Your task to perform on an android device: open app "Google Find My Device" Image 0: 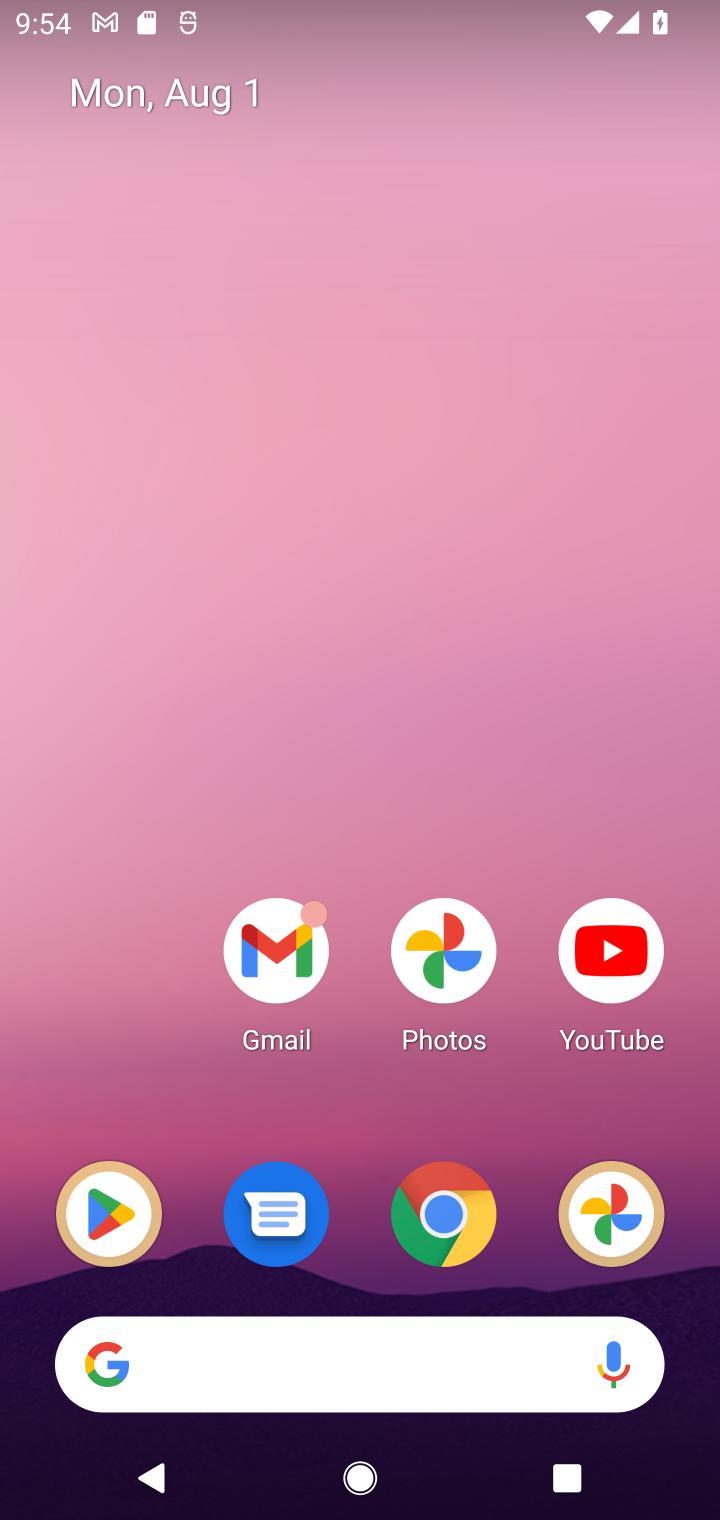
Step 0: press home button
Your task to perform on an android device: open app "Google Find My Device" Image 1: 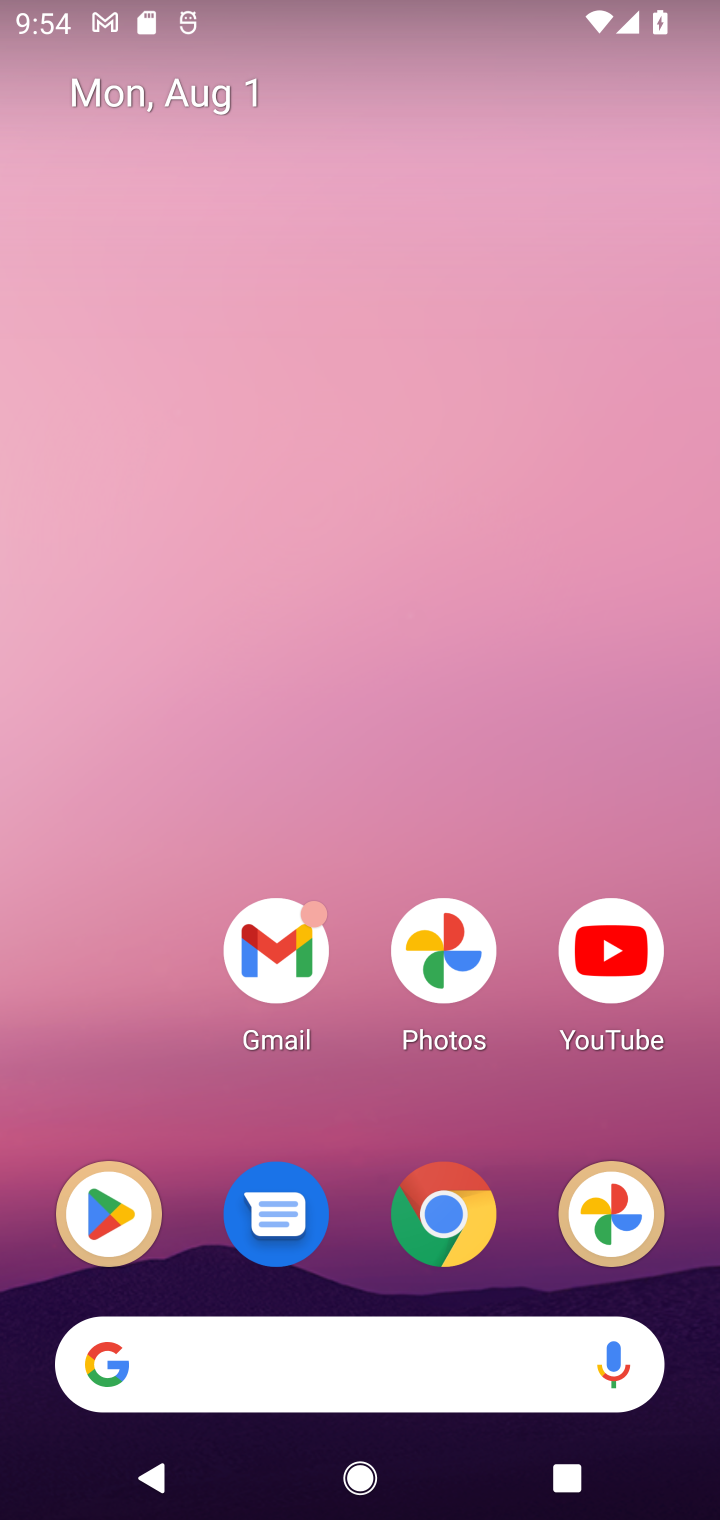
Step 1: click (111, 1224)
Your task to perform on an android device: open app "Google Find My Device" Image 2: 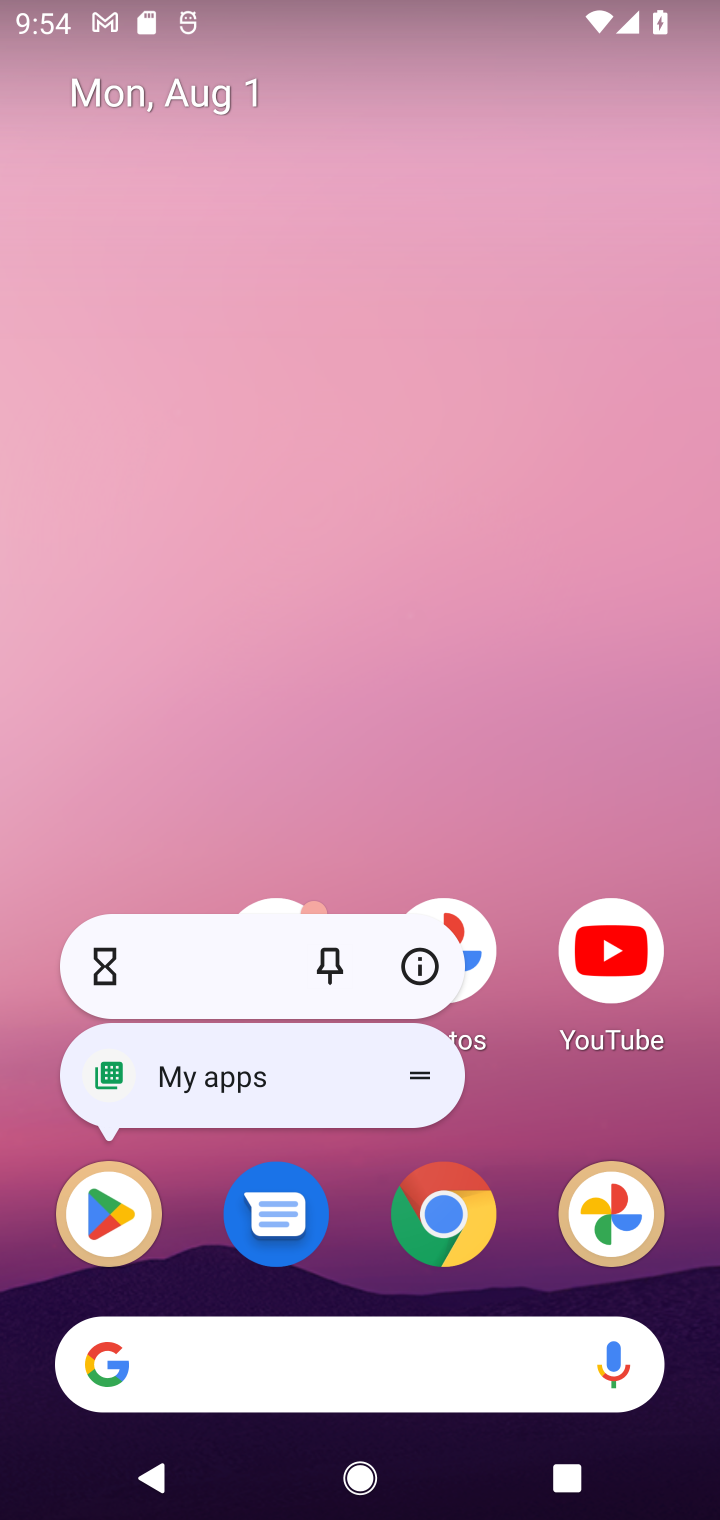
Step 2: click (111, 1224)
Your task to perform on an android device: open app "Google Find My Device" Image 3: 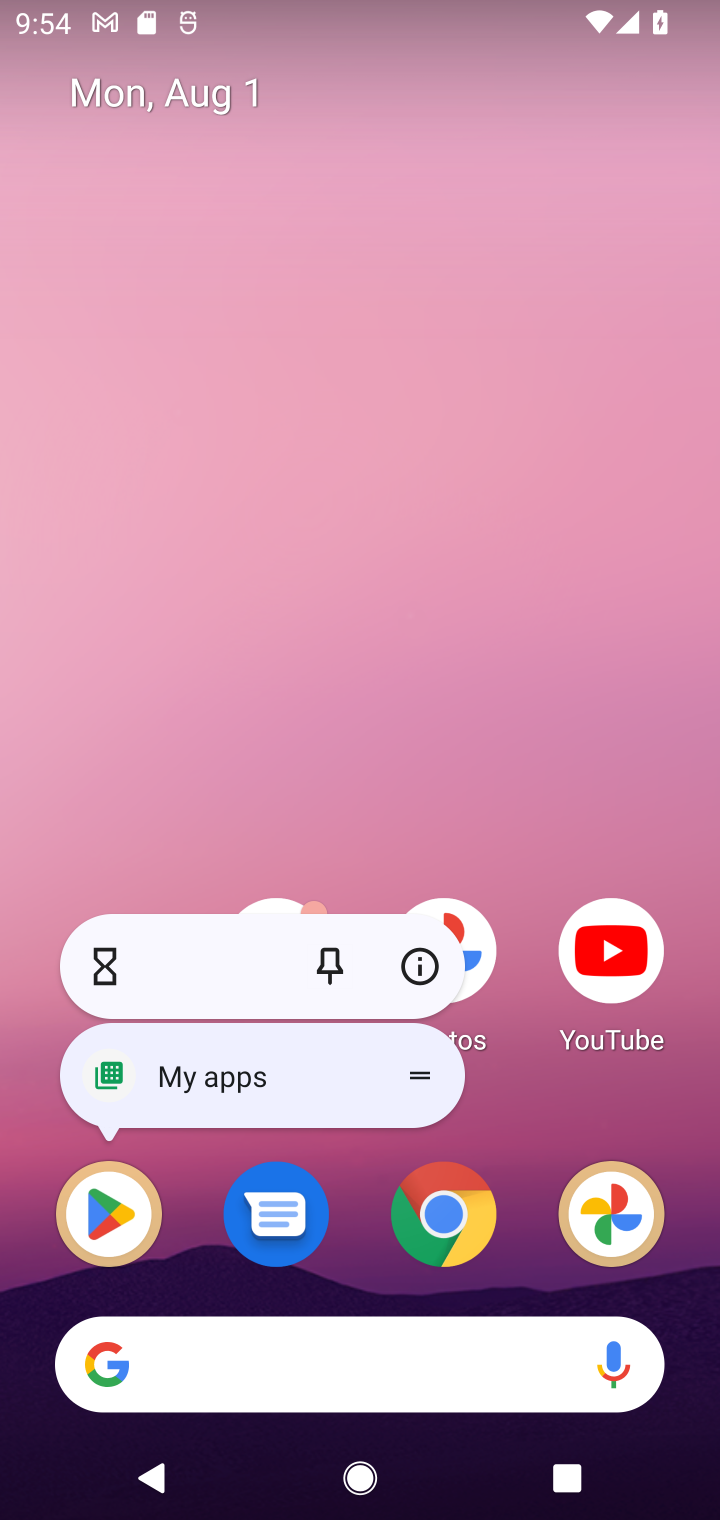
Step 3: click (111, 1222)
Your task to perform on an android device: open app "Google Find My Device" Image 4: 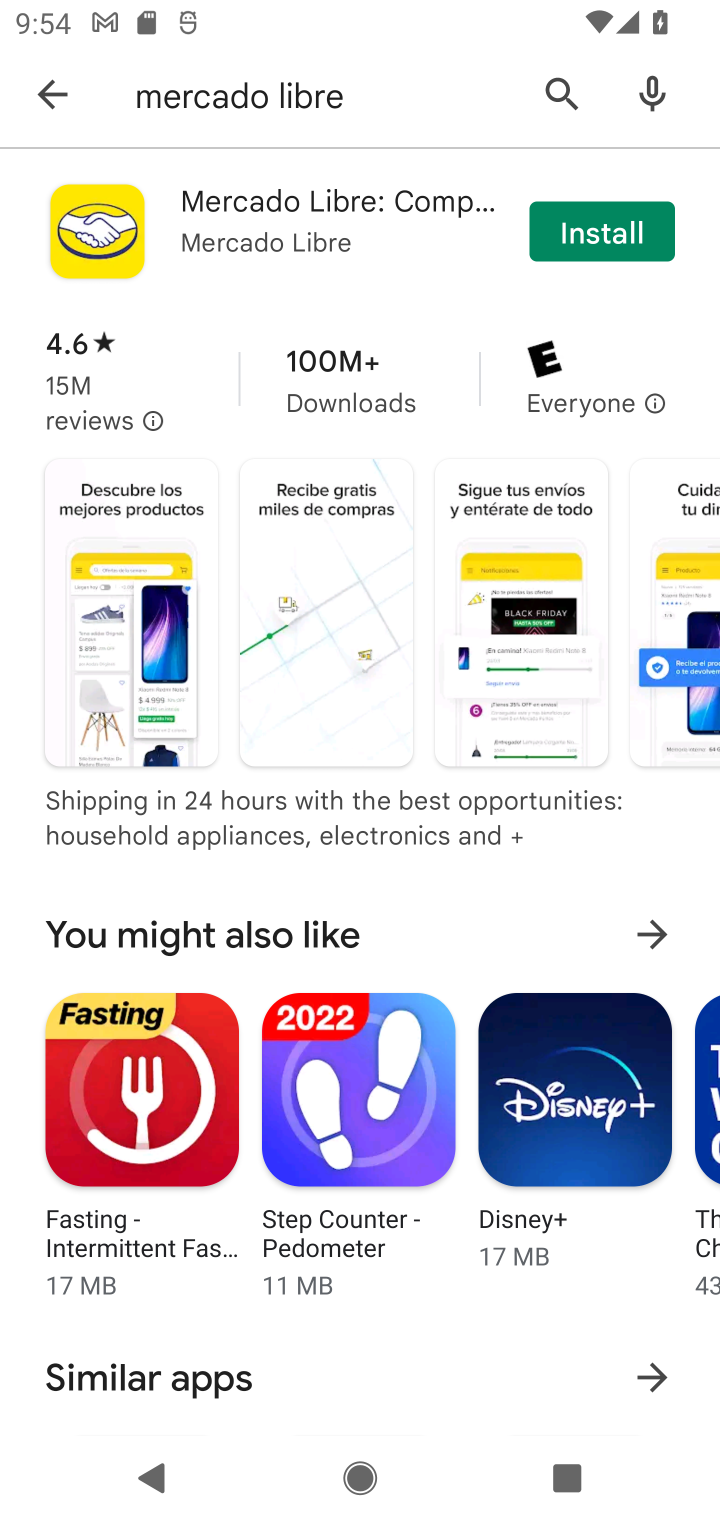
Step 4: click (549, 100)
Your task to perform on an android device: open app "Google Find My Device" Image 5: 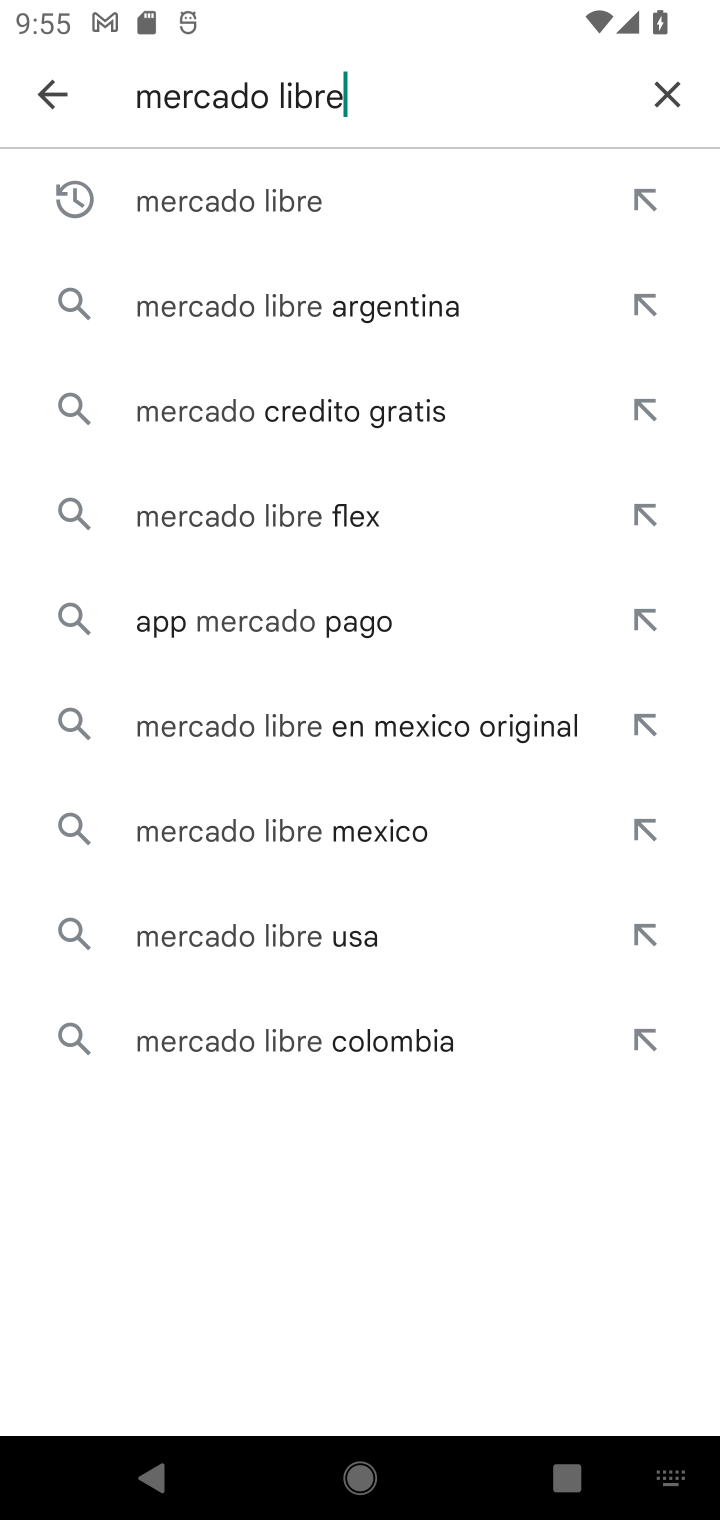
Step 5: click (670, 82)
Your task to perform on an android device: open app "Google Find My Device" Image 6: 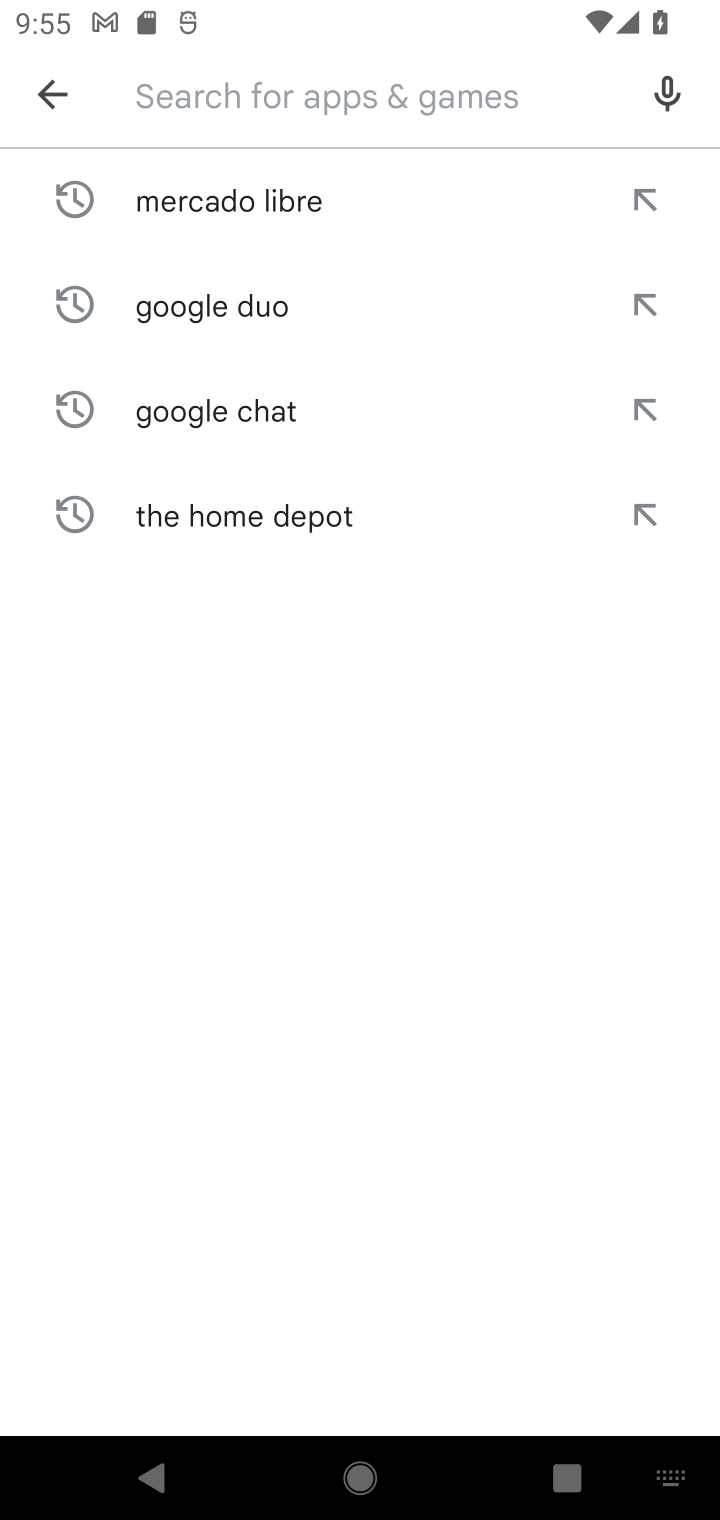
Step 6: type "Google Find My Device"
Your task to perform on an android device: open app "Google Find My Device" Image 7: 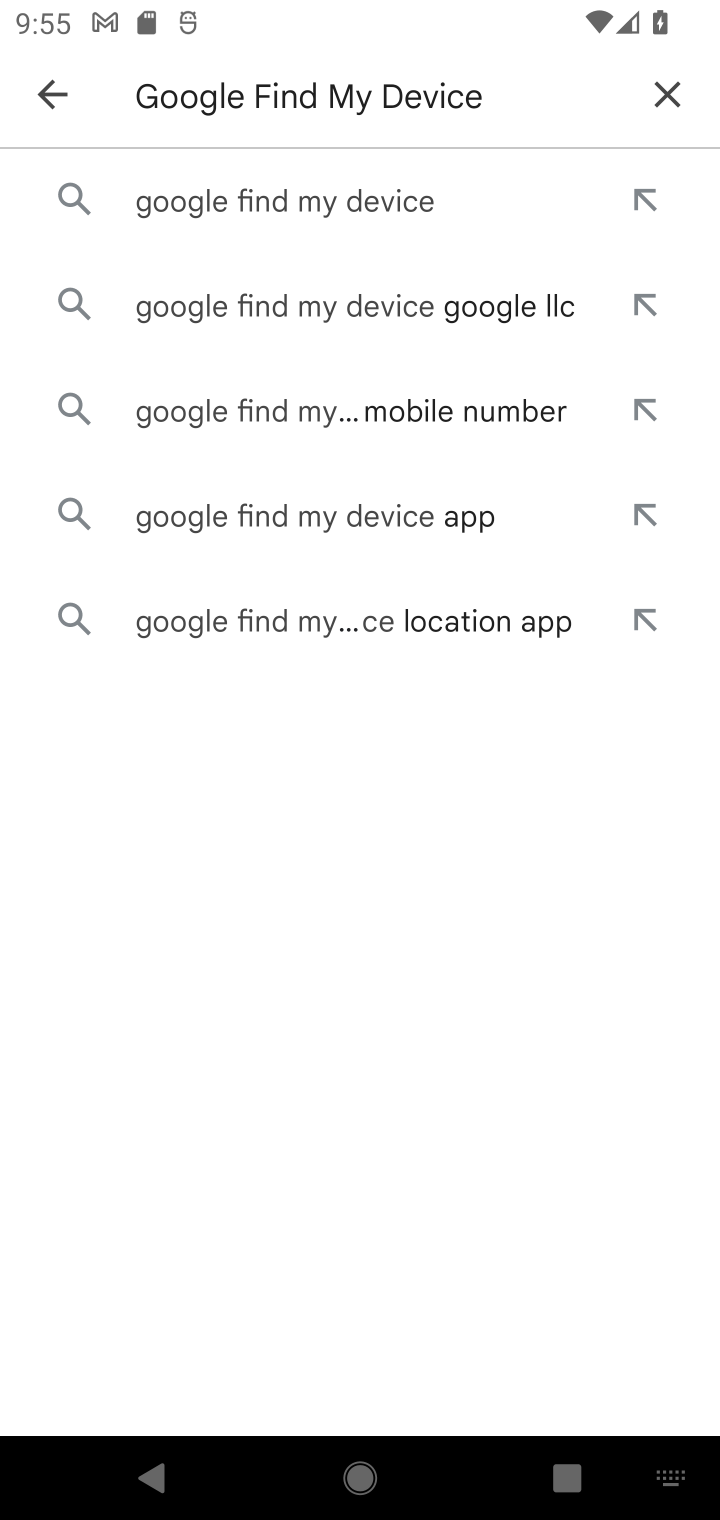
Step 7: click (387, 204)
Your task to perform on an android device: open app "Google Find My Device" Image 8: 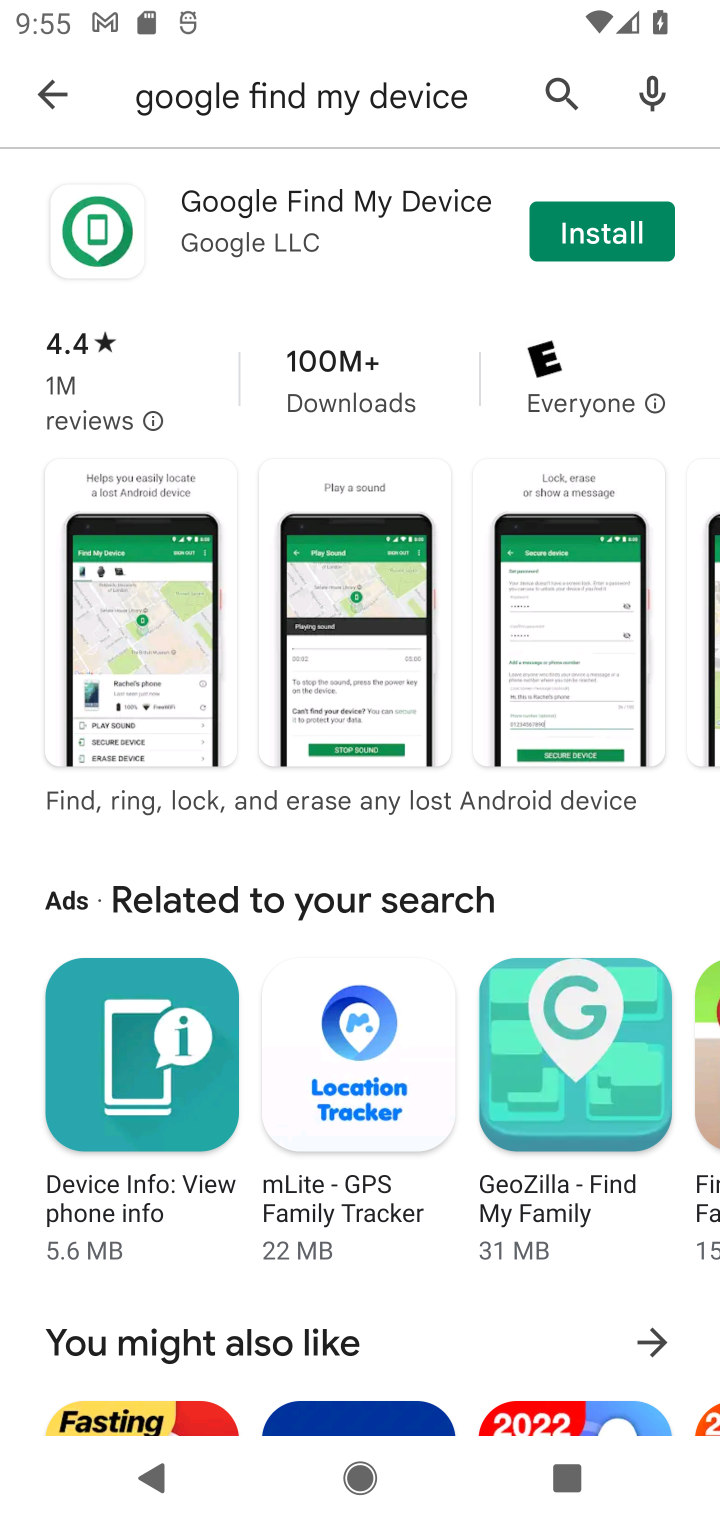
Step 8: task complete